Your task to perform on an android device: Do I have any events tomorrow? Image 0: 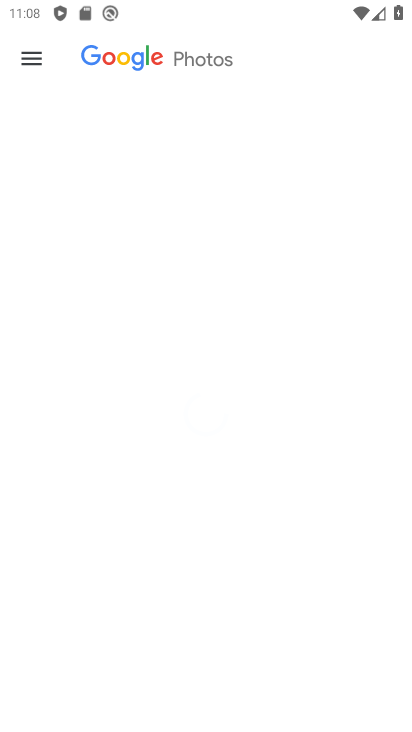
Step 0: press home button
Your task to perform on an android device: Do I have any events tomorrow? Image 1: 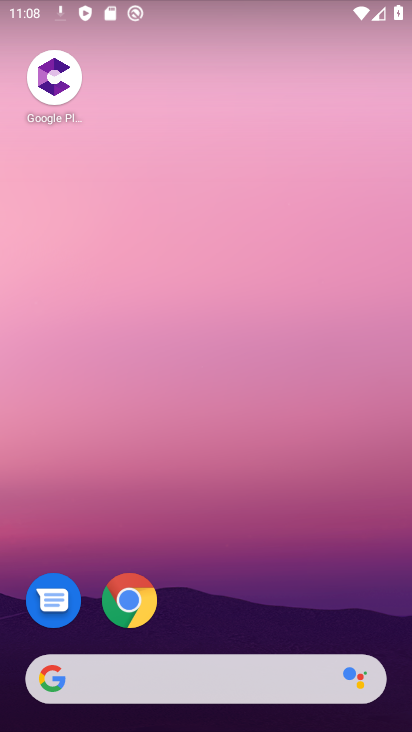
Step 1: drag from (393, 656) to (321, 58)
Your task to perform on an android device: Do I have any events tomorrow? Image 2: 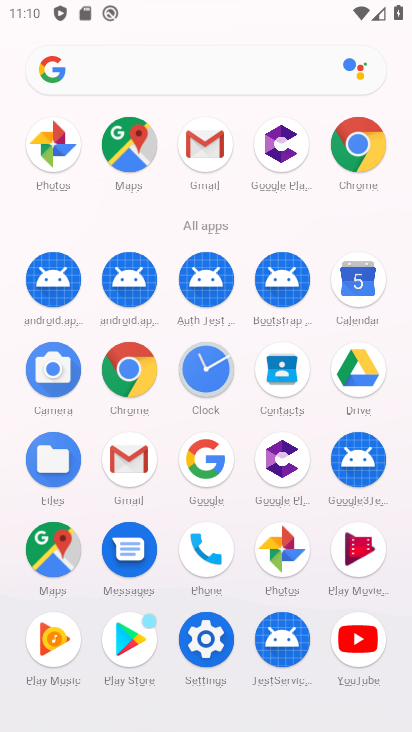
Step 2: click (345, 284)
Your task to perform on an android device: Do I have any events tomorrow? Image 3: 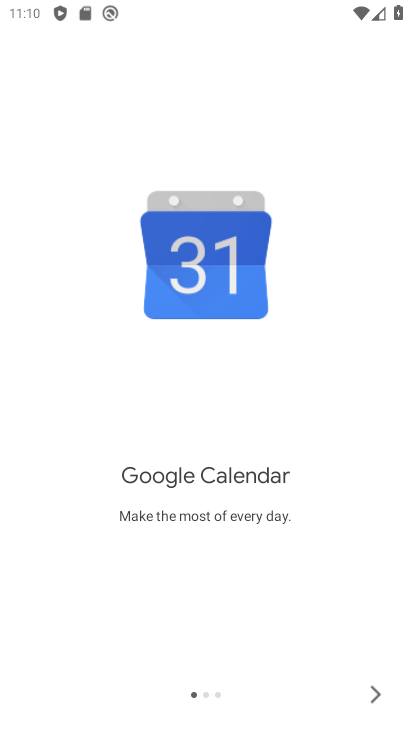
Step 3: click (383, 692)
Your task to perform on an android device: Do I have any events tomorrow? Image 4: 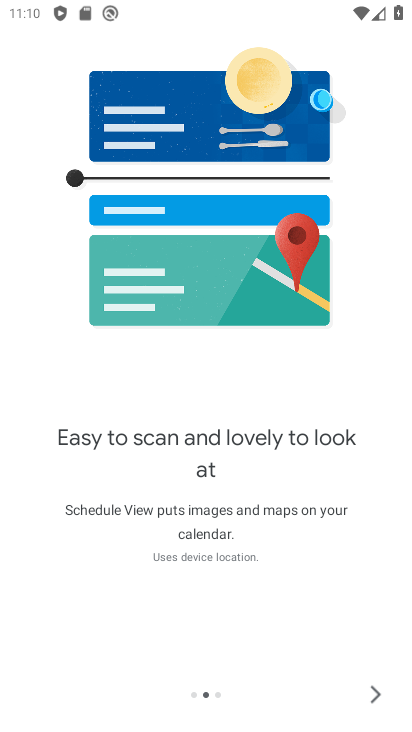
Step 4: click (383, 692)
Your task to perform on an android device: Do I have any events tomorrow? Image 5: 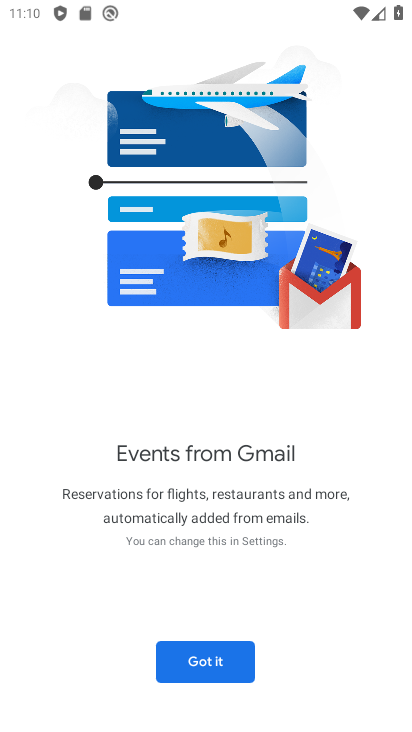
Step 5: click (383, 692)
Your task to perform on an android device: Do I have any events tomorrow? Image 6: 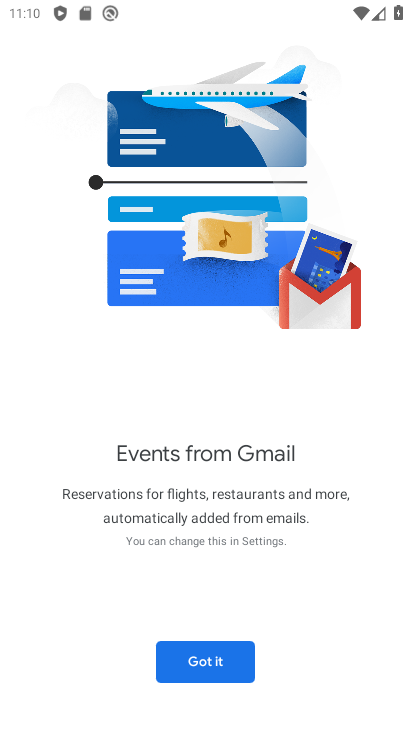
Step 6: click (190, 679)
Your task to perform on an android device: Do I have any events tomorrow? Image 7: 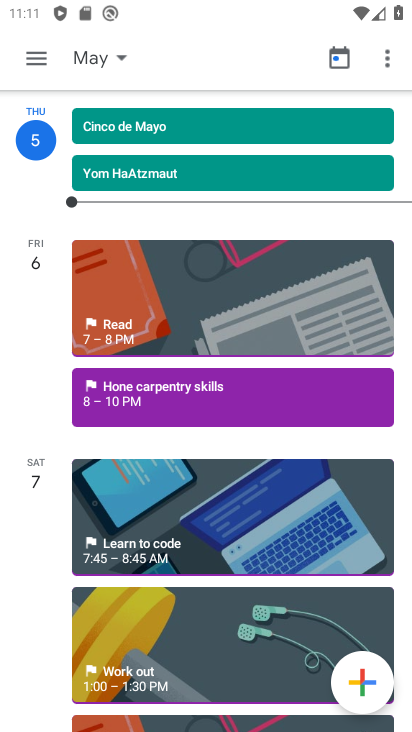
Step 7: click (140, 526)
Your task to perform on an android device: Do I have any events tomorrow? Image 8: 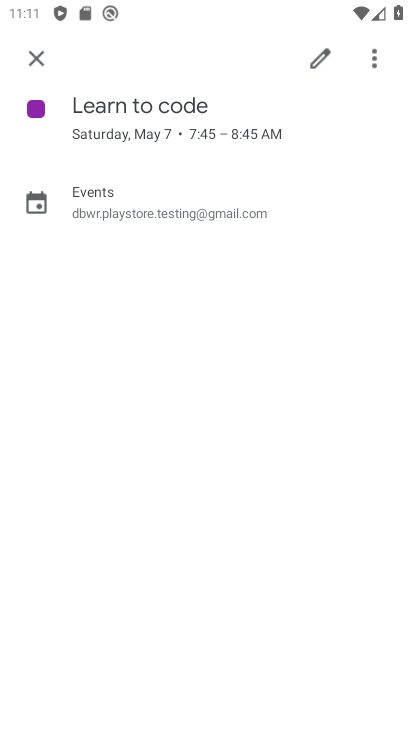
Step 8: task complete